Your task to perform on an android device: toggle notifications settings in the gmail app Image 0: 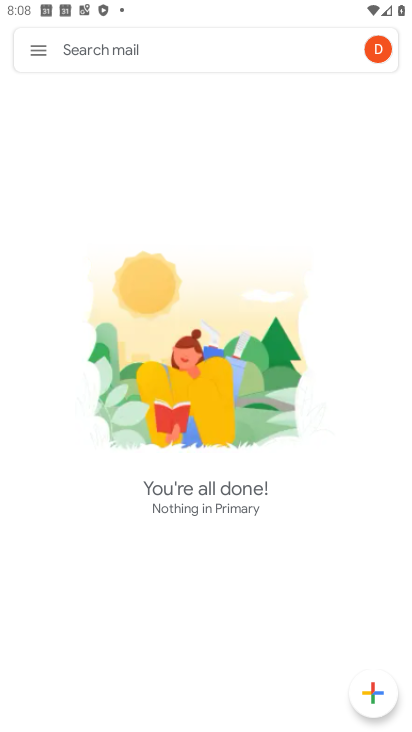
Step 0: press home button
Your task to perform on an android device: toggle notifications settings in the gmail app Image 1: 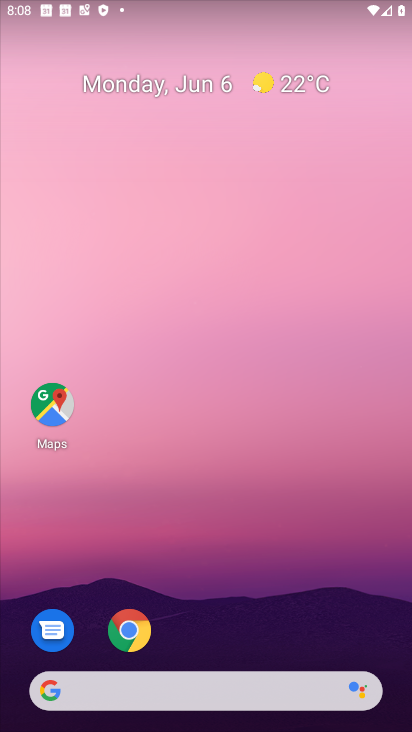
Step 1: drag from (120, 730) to (153, 234)
Your task to perform on an android device: toggle notifications settings in the gmail app Image 2: 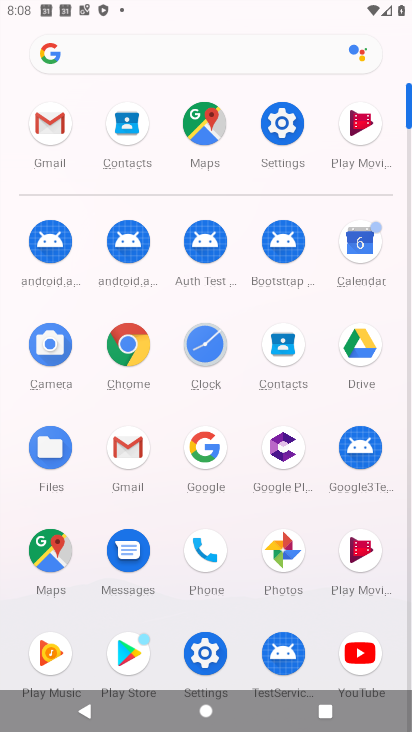
Step 2: click (122, 450)
Your task to perform on an android device: toggle notifications settings in the gmail app Image 3: 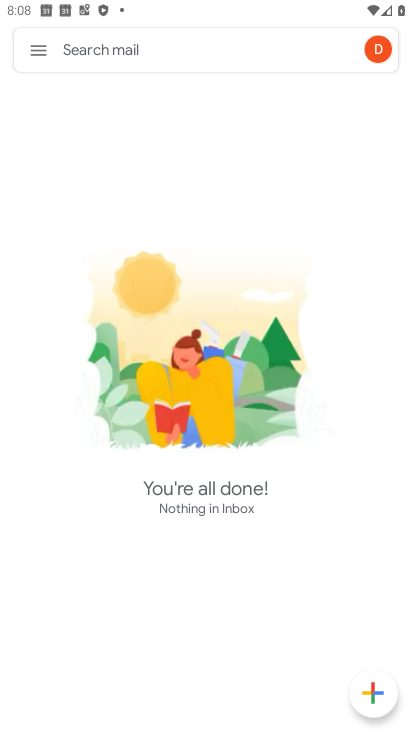
Step 3: click (37, 53)
Your task to perform on an android device: toggle notifications settings in the gmail app Image 4: 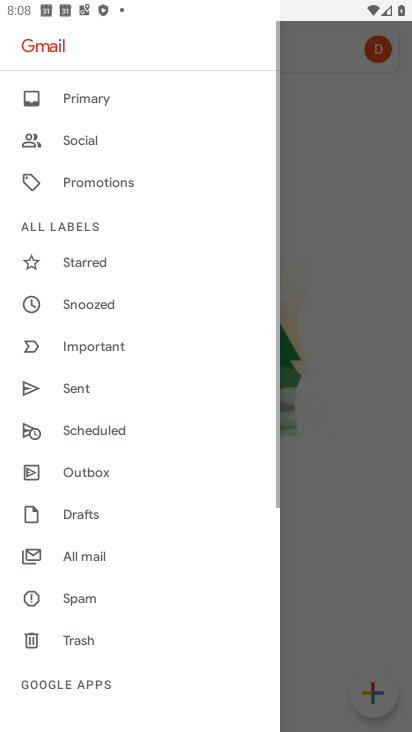
Step 4: drag from (123, 683) to (133, 414)
Your task to perform on an android device: toggle notifications settings in the gmail app Image 5: 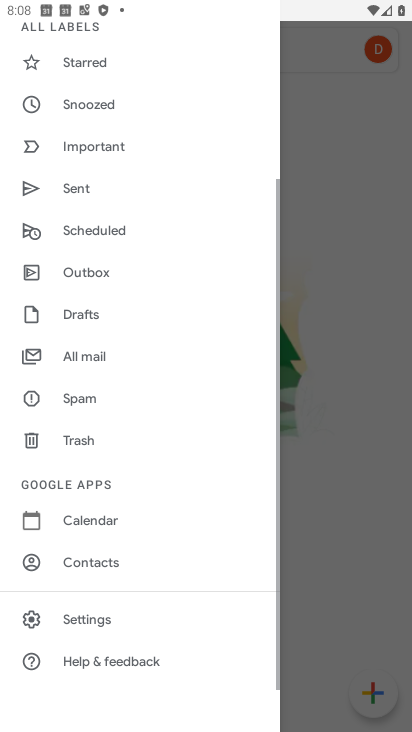
Step 5: click (67, 625)
Your task to perform on an android device: toggle notifications settings in the gmail app Image 6: 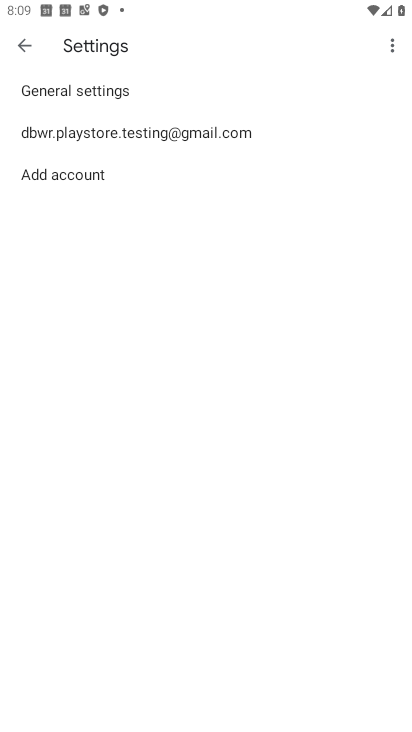
Step 6: click (82, 139)
Your task to perform on an android device: toggle notifications settings in the gmail app Image 7: 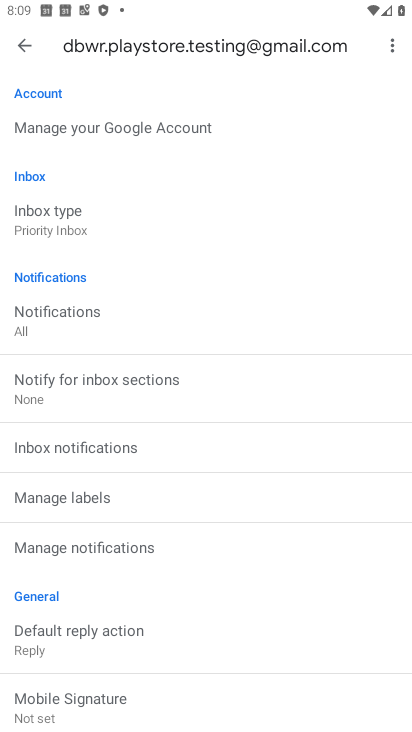
Step 7: click (99, 322)
Your task to perform on an android device: toggle notifications settings in the gmail app Image 8: 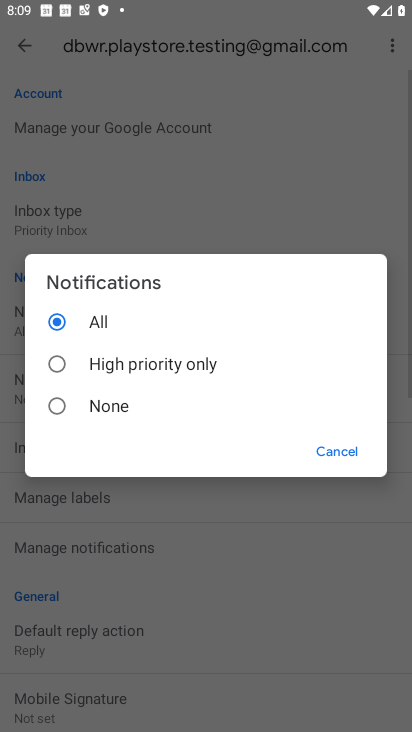
Step 8: click (98, 415)
Your task to perform on an android device: toggle notifications settings in the gmail app Image 9: 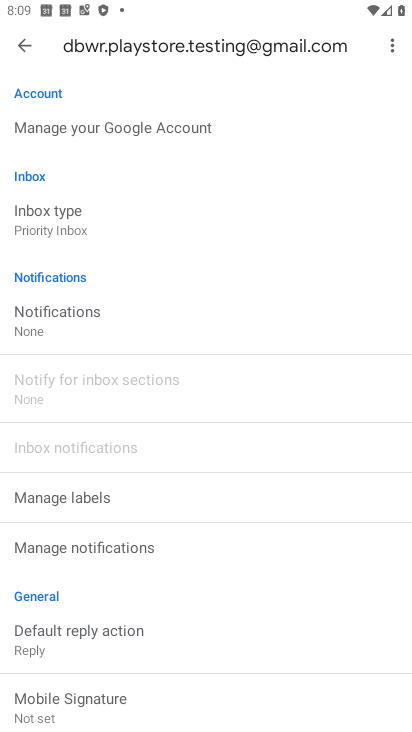
Step 9: task complete